Your task to perform on an android device: Check the weather Image 0: 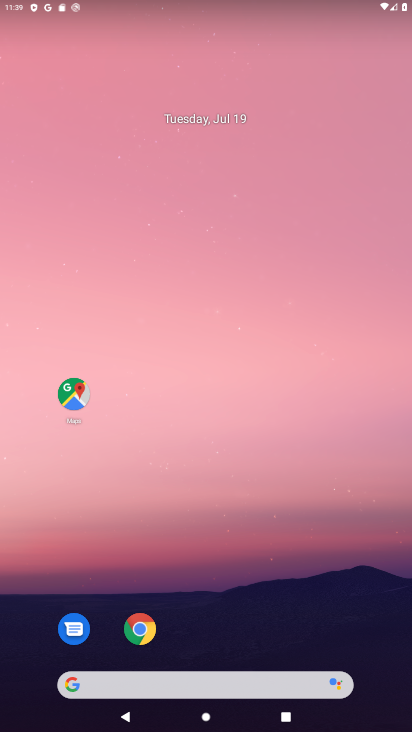
Step 0: drag from (181, 685) to (240, 110)
Your task to perform on an android device: Check the weather Image 1: 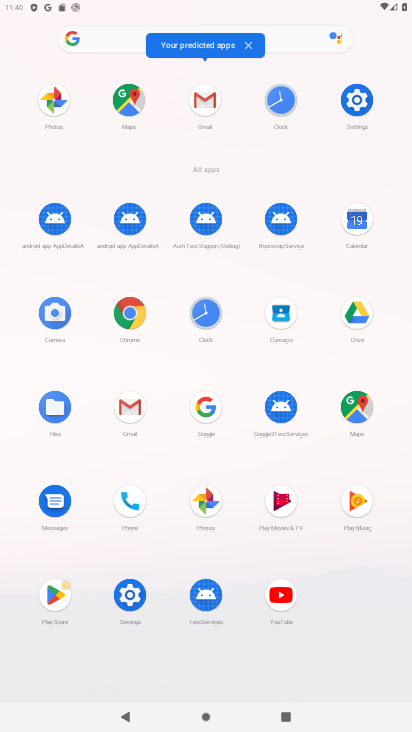
Step 1: click (204, 406)
Your task to perform on an android device: Check the weather Image 2: 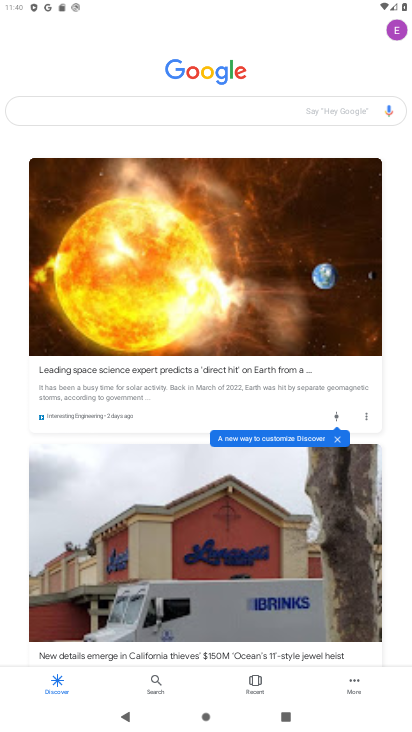
Step 2: click (164, 104)
Your task to perform on an android device: Check the weather Image 3: 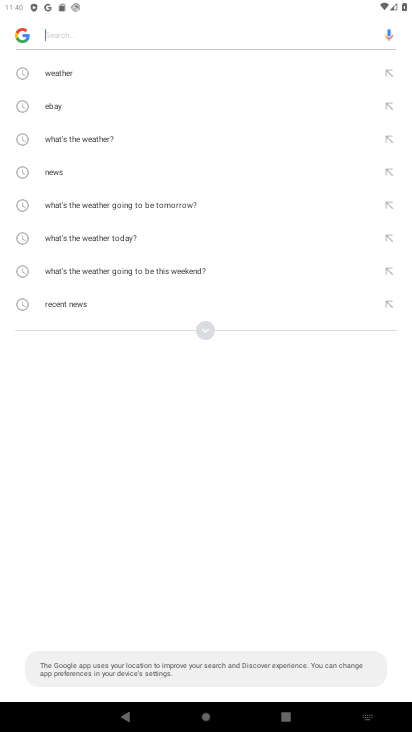
Step 3: click (56, 71)
Your task to perform on an android device: Check the weather Image 4: 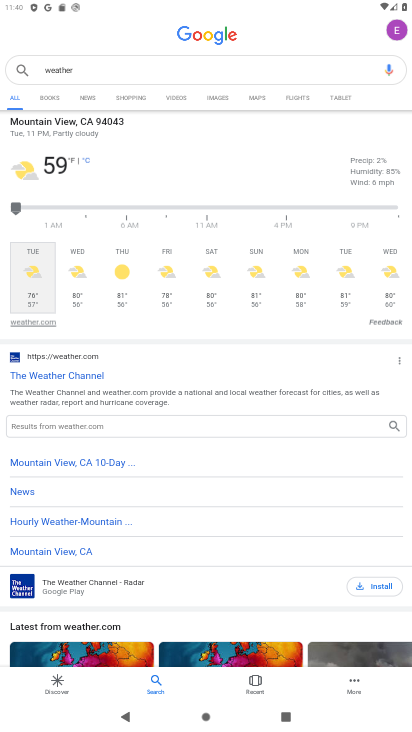
Step 4: task complete